Your task to perform on an android device: turn off smart reply in the gmail app Image 0: 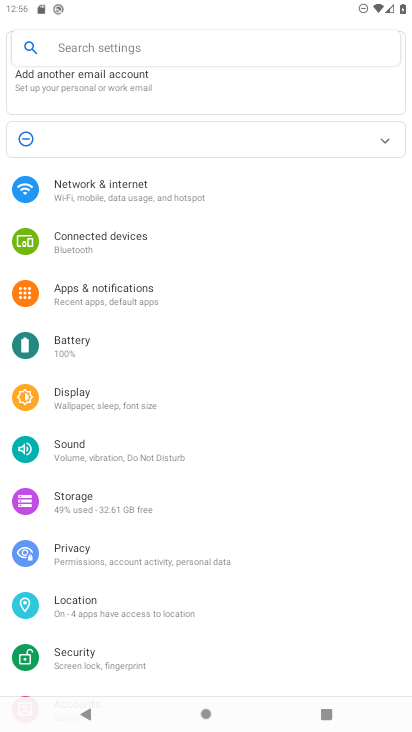
Step 0: press home button
Your task to perform on an android device: turn off smart reply in the gmail app Image 1: 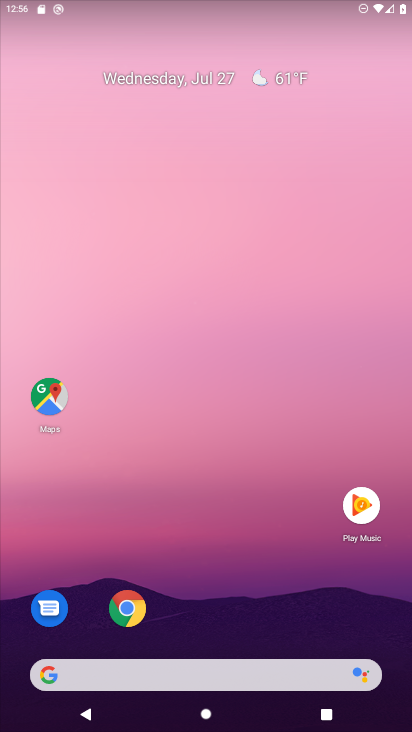
Step 1: drag from (303, 598) to (309, 155)
Your task to perform on an android device: turn off smart reply in the gmail app Image 2: 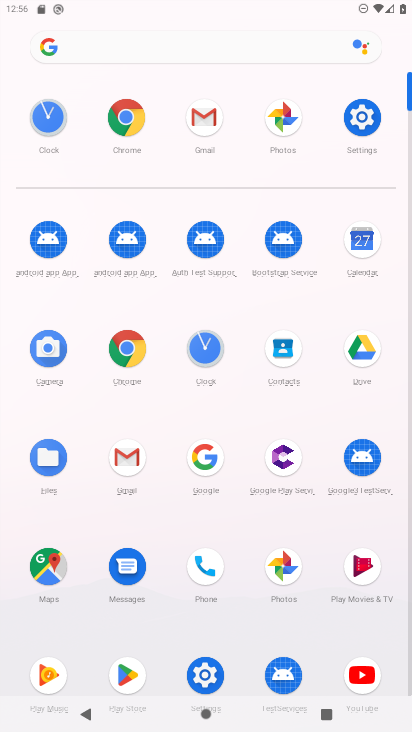
Step 2: click (129, 458)
Your task to perform on an android device: turn off smart reply in the gmail app Image 3: 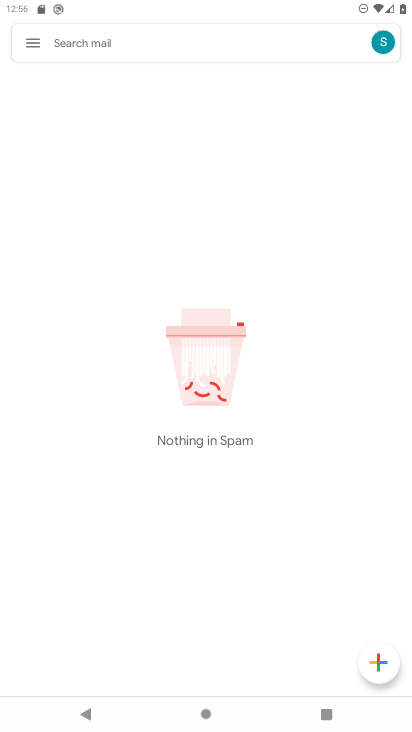
Step 3: click (35, 49)
Your task to perform on an android device: turn off smart reply in the gmail app Image 4: 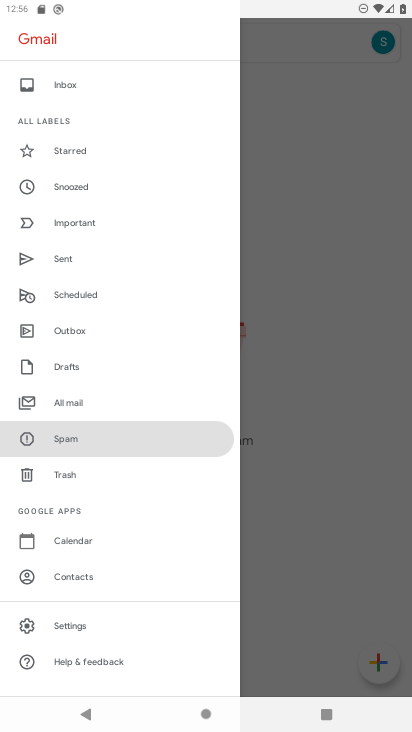
Step 4: click (89, 621)
Your task to perform on an android device: turn off smart reply in the gmail app Image 5: 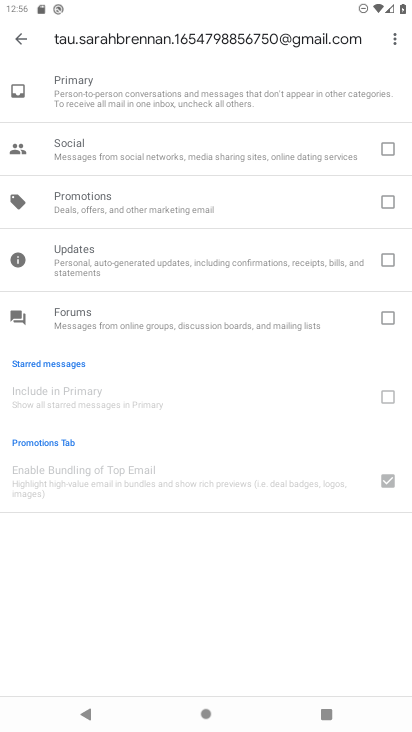
Step 5: drag from (230, 547) to (237, 435)
Your task to perform on an android device: turn off smart reply in the gmail app Image 6: 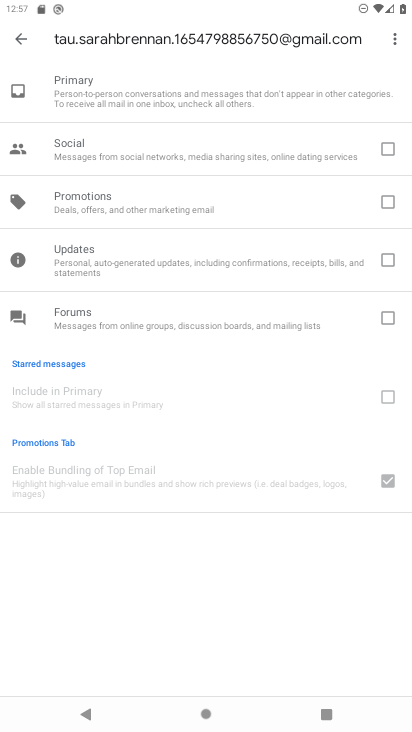
Step 6: click (25, 34)
Your task to perform on an android device: turn off smart reply in the gmail app Image 7: 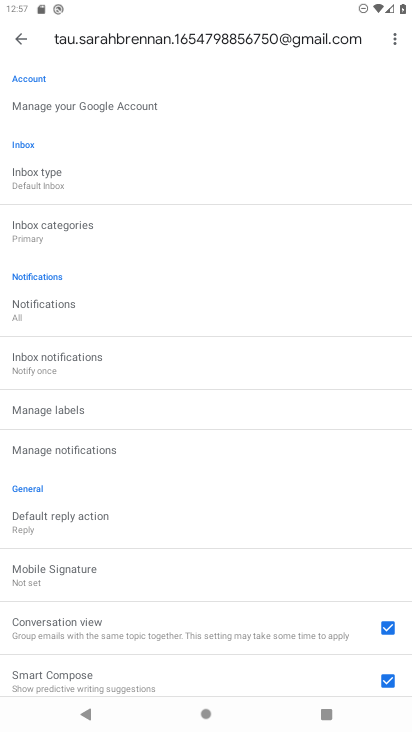
Step 7: drag from (234, 402) to (234, 359)
Your task to perform on an android device: turn off smart reply in the gmail app Image 8: 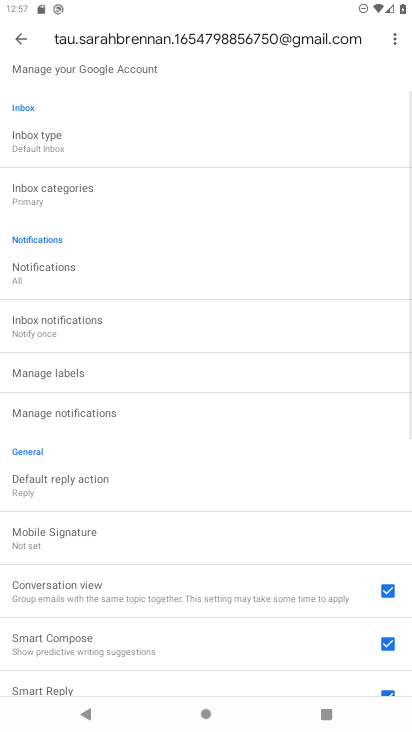
Step 8: drag from (247, 461) to (246, 373)
Your task to perform on an android device: turn off smart reply in the gmail app Image 9: 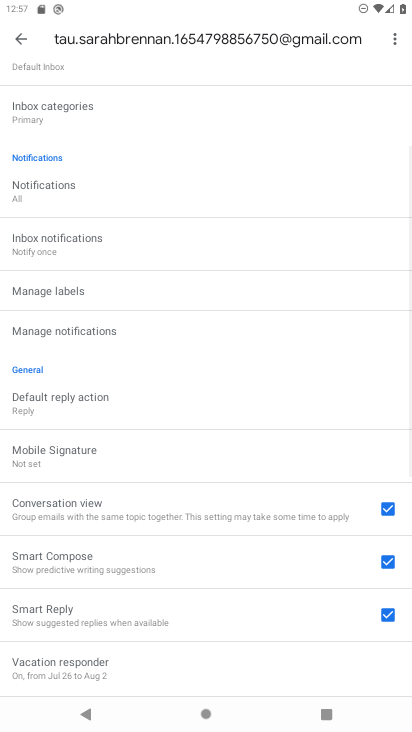
Step 9: drag from (266, 504) to (261, 416)
Your task to perform on an android device: turn off smart reply in the gmail app Image 10: 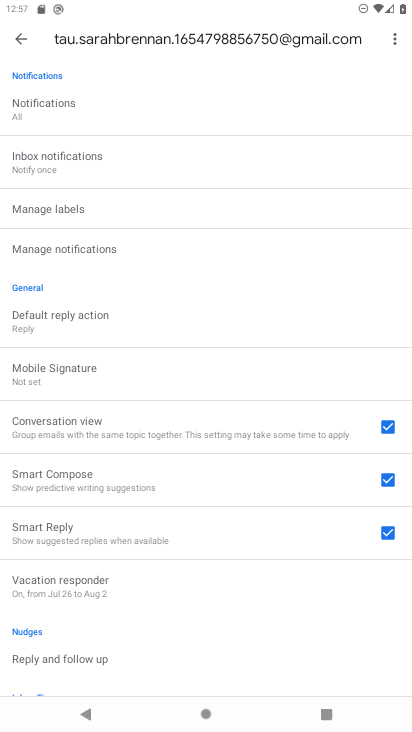
Step 10: drag from (252, 497) to (253, 423)
Your task to perform on an android device: turn off smart reply in the gmail app Image 11: 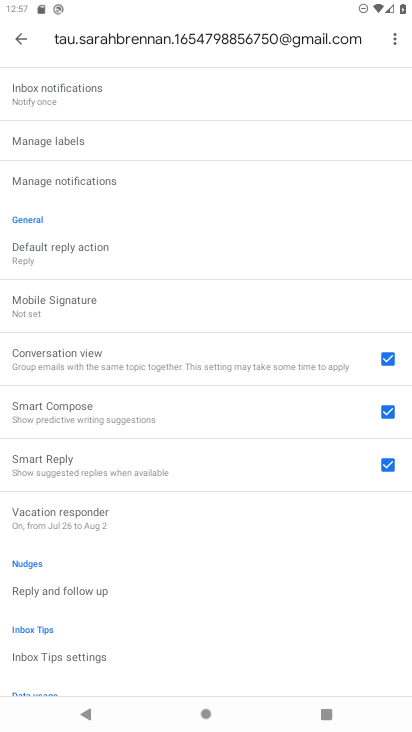
Step 11: click (398, 466)
Your task to perform on an android device: turn off smart reply in the gmail app Image 12: 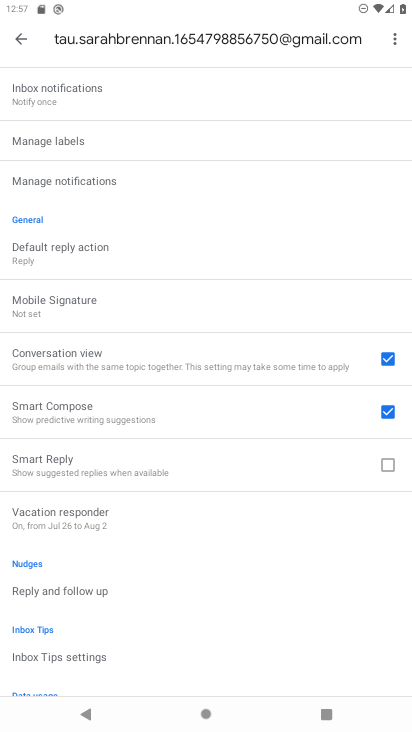
Step 12: task complete